Your task to perform on an android device: change your default location settings in chrome Image 0: 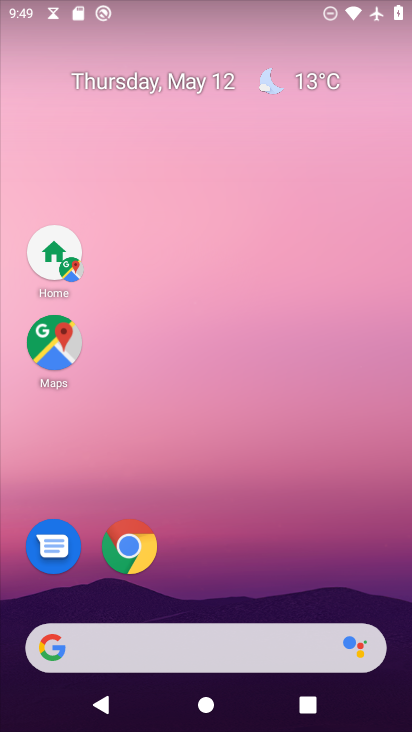
Step 0: click (132, 556)
Your task to perform on an android device: change your default location settings in chrome Image 1: 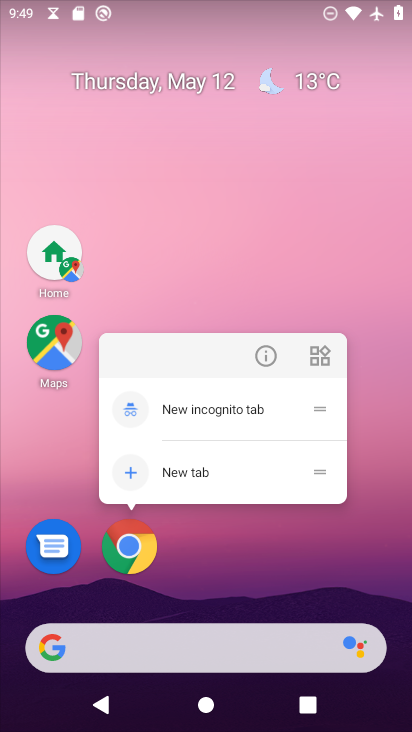
Step 1: click (138, 549)
Your task to perform on an android device: change your default location settings in chrome Image 2: 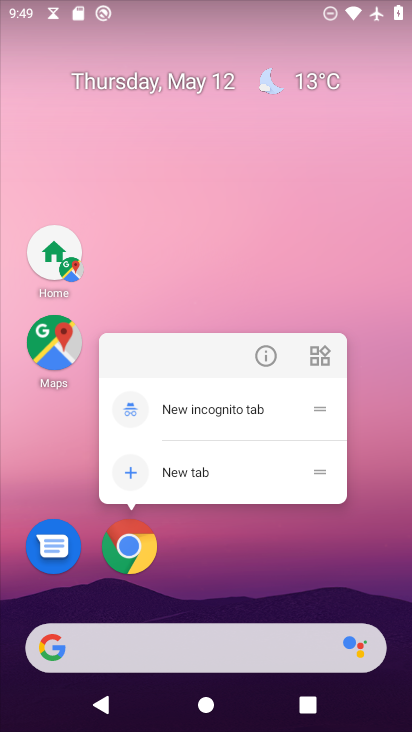
Step 2: click (133, 552)
Your task to perform on an android device: change your default location settings in chrome Image 3: 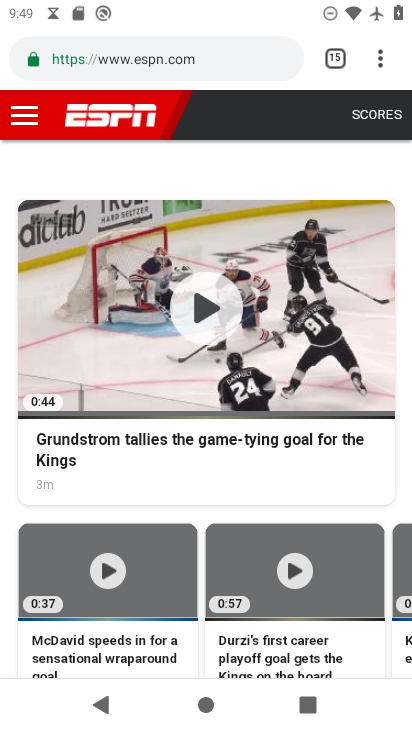
Step 3: drag from (372, 59) to (233, 565)
Your task to perform on an android device: change your default location settings in chrome Image 4: 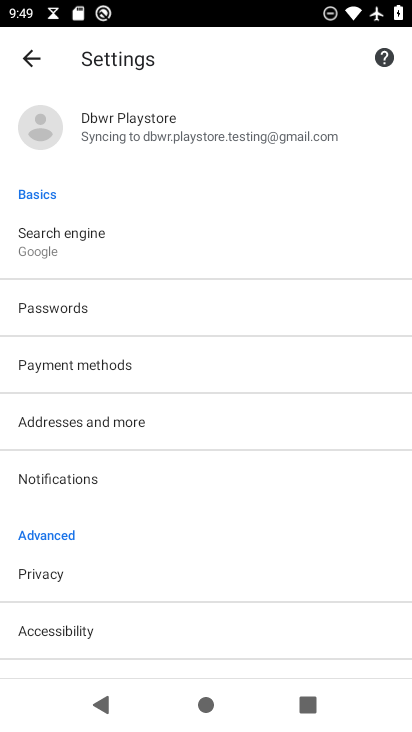
Step 4: drag from (148, 622) to (267, 422)
Your task to perform on an android device: change your default location settings in chrome Image 5: 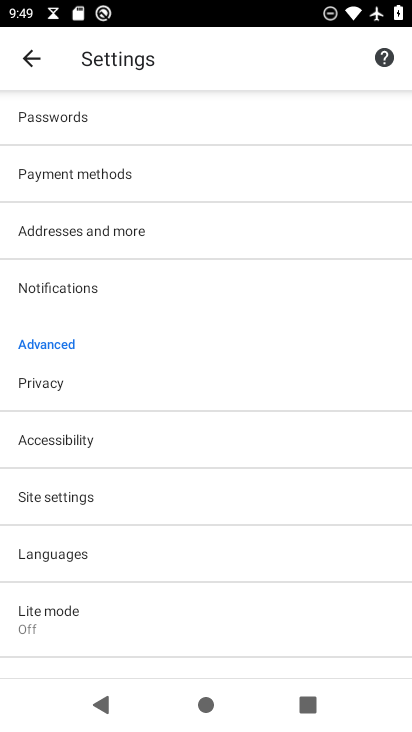
Step 5: click (44, 493)
Your task to perform on an android device: change your default location settings in chrome Image 6: 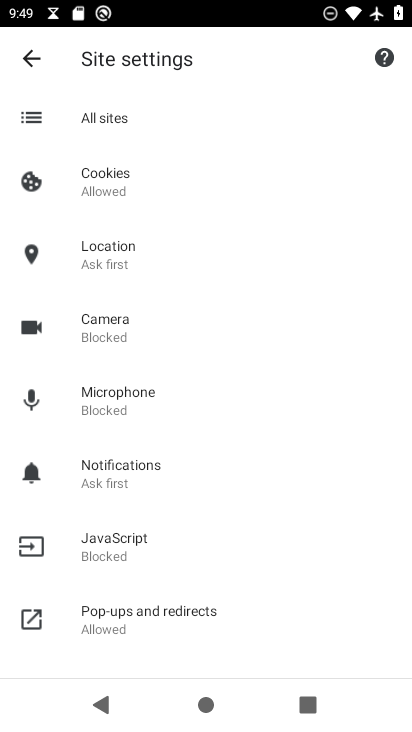
Step 6: click (120, 258)
Your task to perform on an android device: change your default location settings in chrome Image 7: 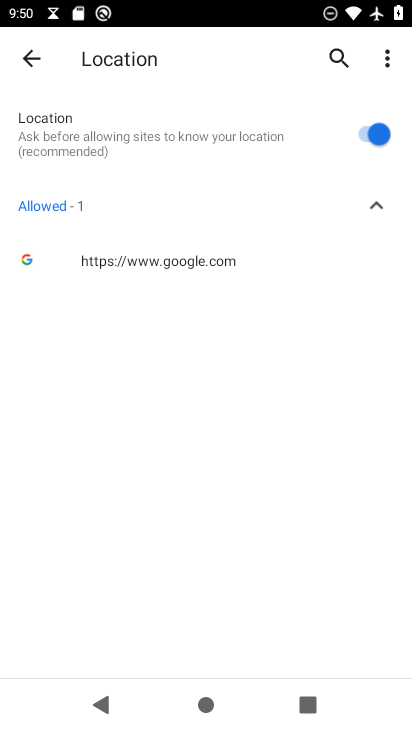
Step 7: click (366, 132)
Your task to perform on an android device: change your default location settings in chrome Image 8: 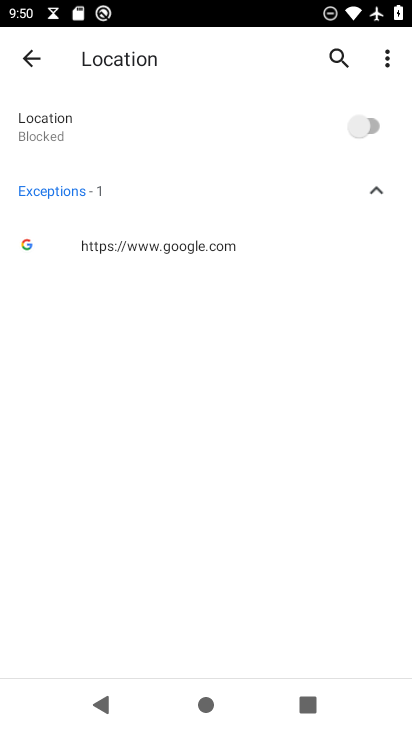
Step 8: task complete